Your task to perform on an android device: Open accessibility settings Image 0: 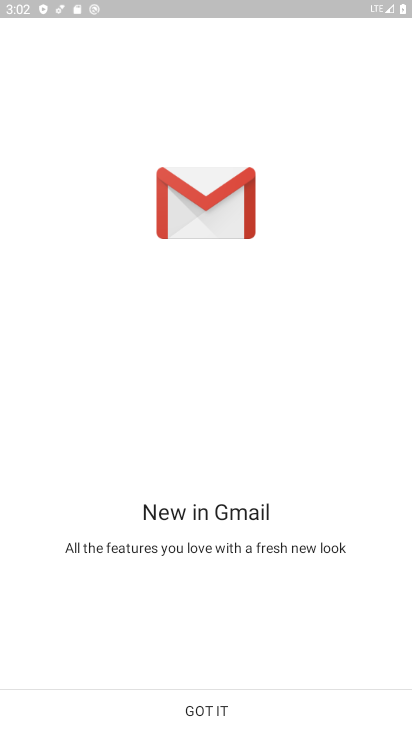
Step 0: press home button
Your task to perform on an android device: Open accessibility settings Image 1: 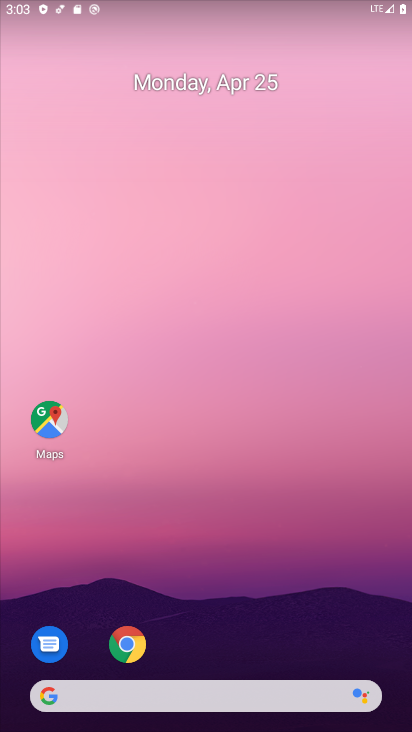
Step 1: drag from (216, 650) to (232, 116)
Your task to perform on an android device: Open accessibility settings Image 2: 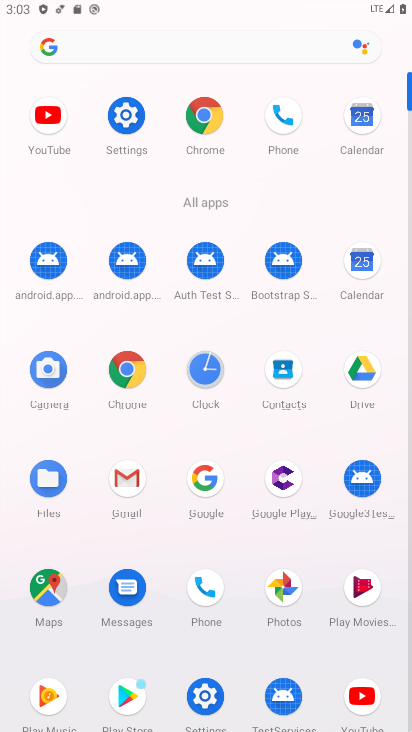
Step 2: click (206, 131)
Your task to perform on an android device: Open accessibility settings Image 3: 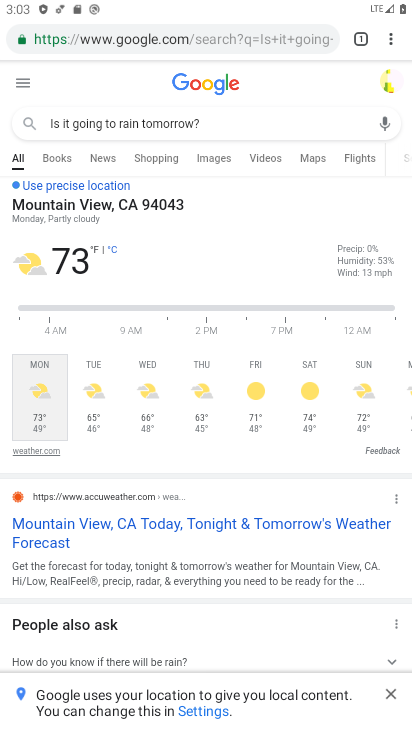
Step 3: drag from (389, 50) to (251, 469)
Your task to perform on an android device: Open accessibility settings Image 4: 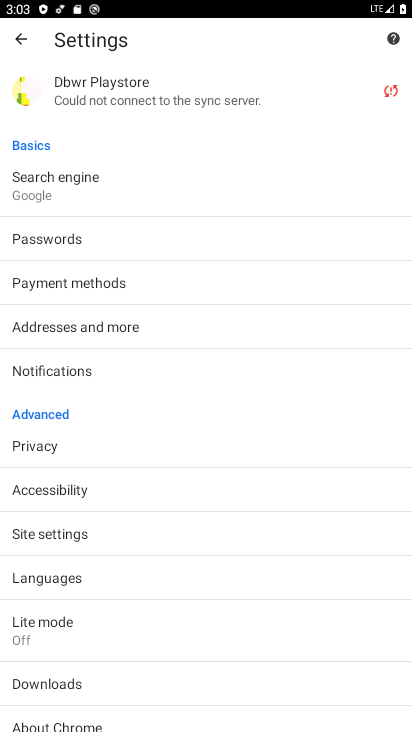
Step 4: click (147, 485)
Your task to perform on an android device: Open accessibility settings Image 5: 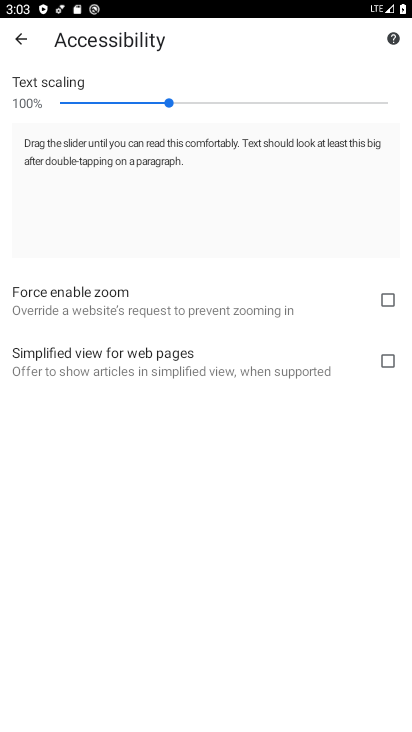
Step 5: task complete